Your task to perform on an android device: Open Maps and search for coffee Image 0: 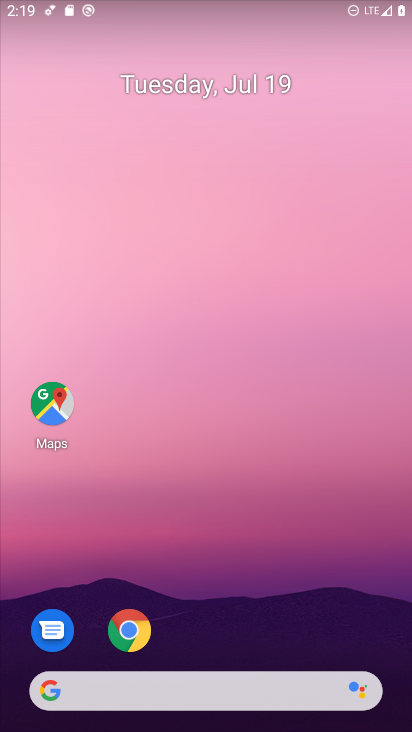
Step 0: drag from (376, 631) to (289, 97)
Your task to perform on an android device: Open Maps and search for coffee Image 1: 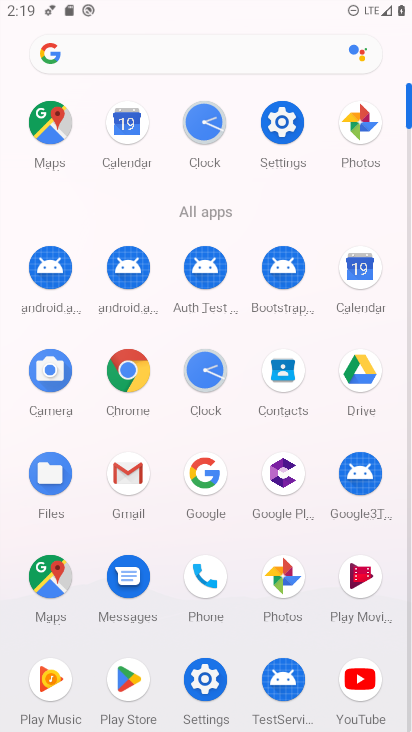
Step 1: click (50, 578)
Your task to perform on an android device: Open Maps and search for coffee Image 2: 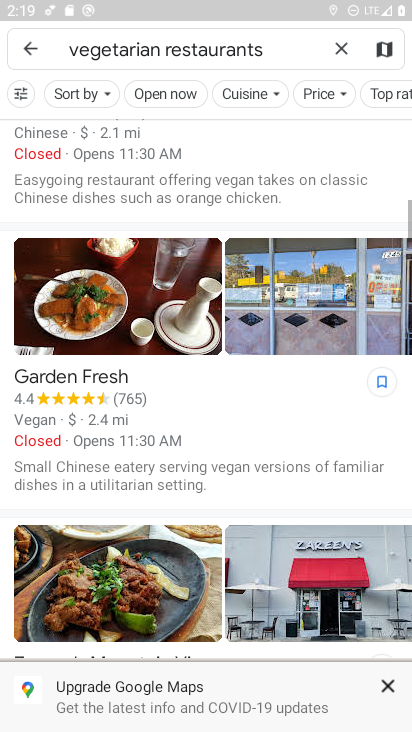
Step 2: click (339, 47)
Your task to perform on an android device: Open Maps and search for coffee Image 3: 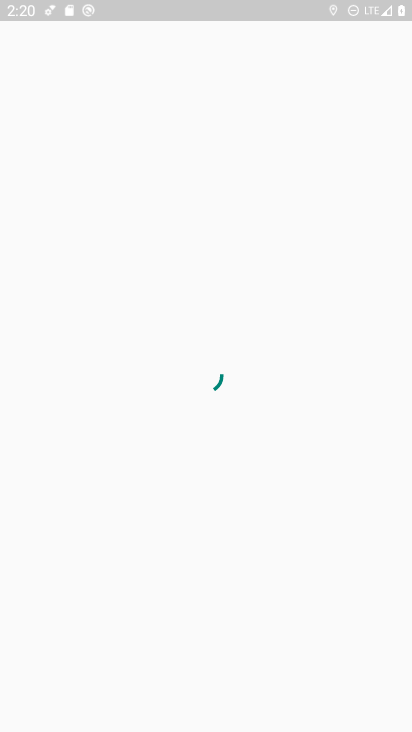
Step 3: click (102, 46)
Your task to perform on an android device: Open Maps and search for coffee Image 4: 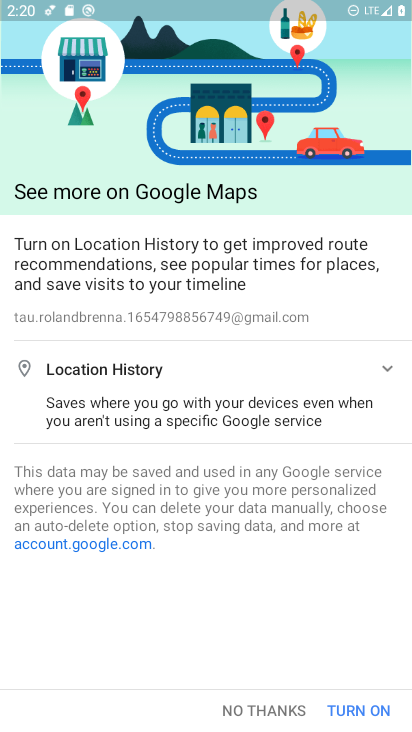
Step 4: click (247, 711)
Your task to perform on an android device: Open Maps and search for coffee Image 5: 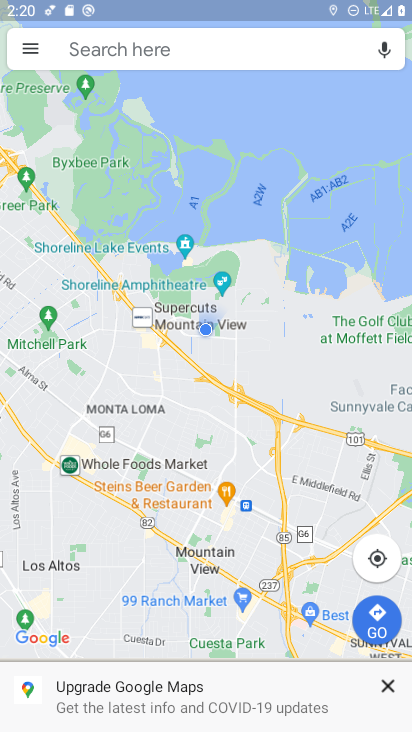
Step 5: click (148, 45)
Your task to perform on an android device: Open Maps and search for coffee Image 6: 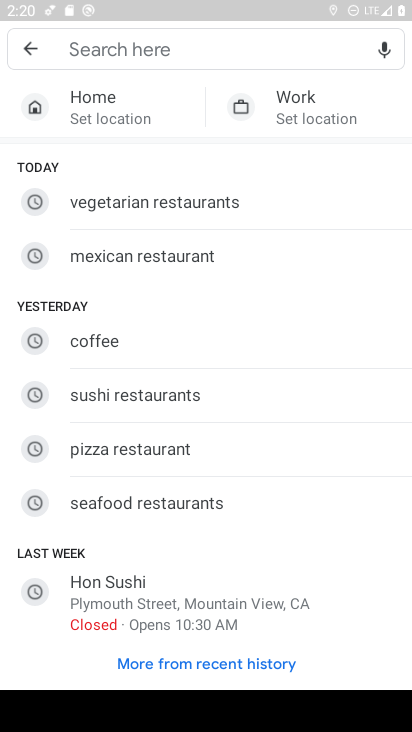
Step 6: type "coffee"
Your task to perform on an android device: Open Maps and search for coffee Image 7: 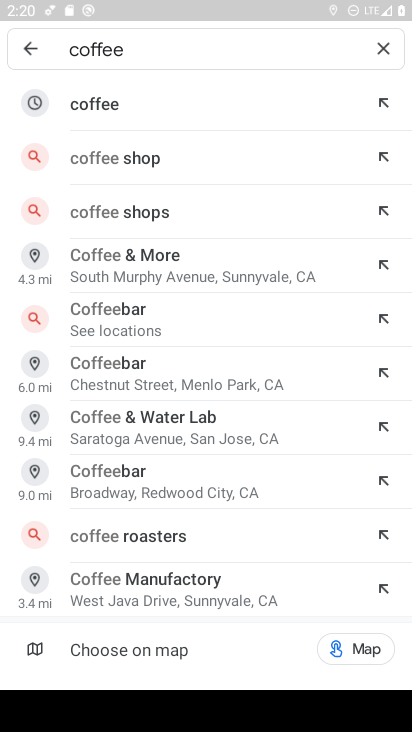
Step 7: click (96, 99)
Your task to perform on an android device: Open Maps and search for coffee Image 8: 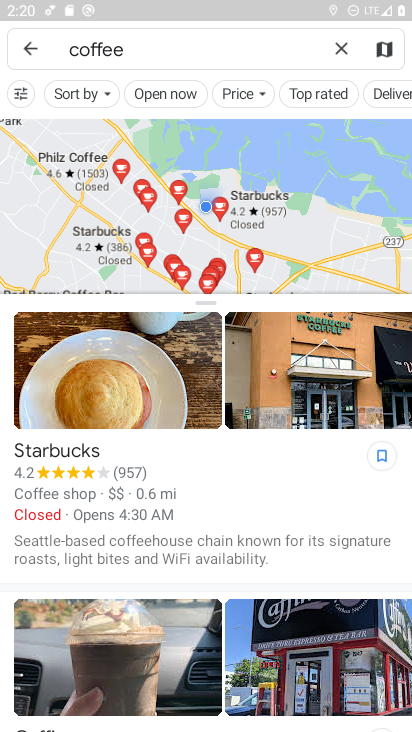
Step 8: task complete